Your task to perform on an android device: Turn off the flashlight Image 0: 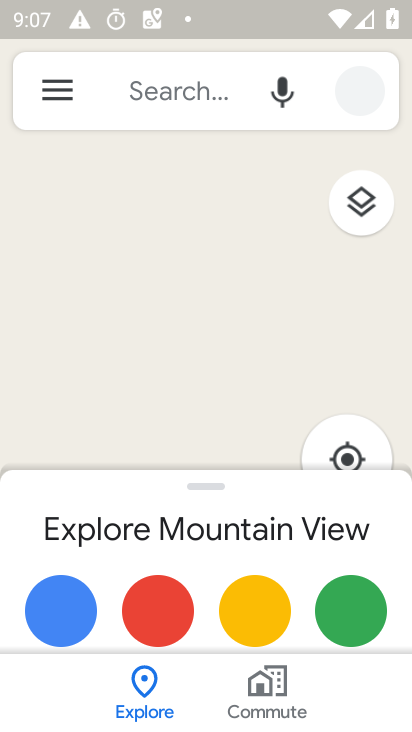
Step 0: press home button
Your task to perform on an android device: Turn off the flashlight Image 1: 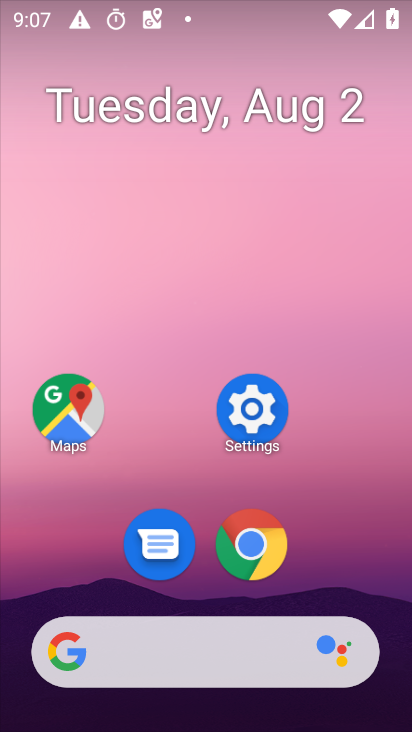
Step 1: task complete